Your task to perform on an android device: change text size in settings app Image 0: 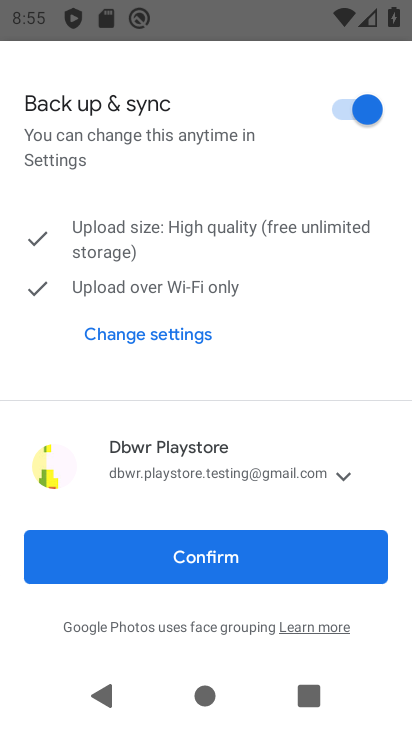
Step 0: click (206, 552)
Your task to perform on an android device: change text size in settings app Image 1: 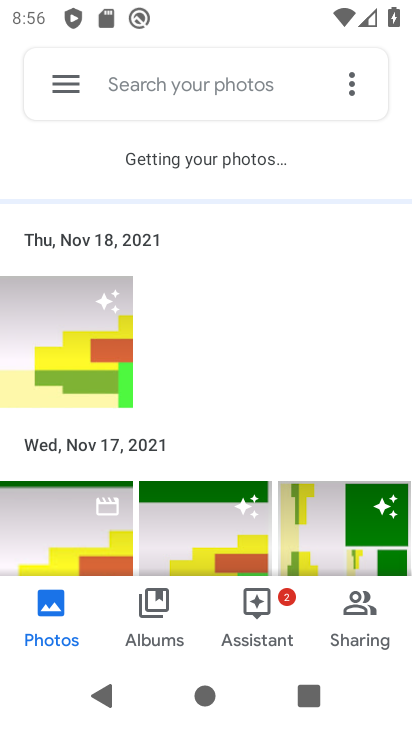
Step 1: press back button
Your task to perform on an android device: change text size in settings app Image 2: 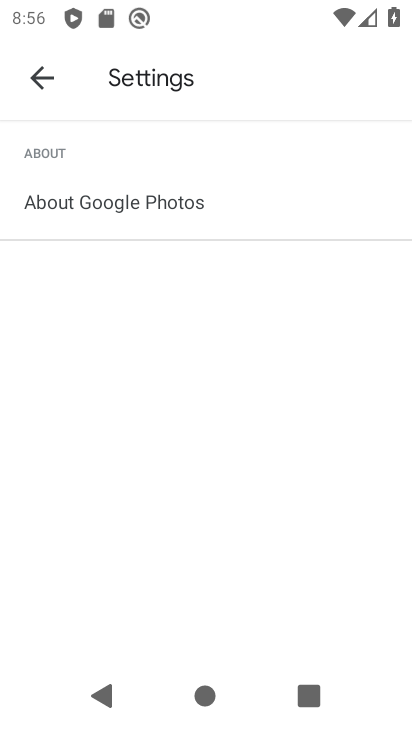
Step 2: press back button
Your task to perform on an android device: change text size in settings app Image 3: 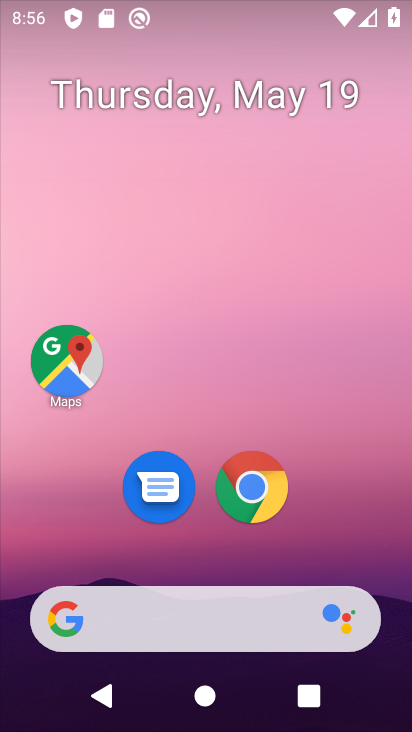
Step 3: drag from (203, 527) to (281, 20)
Your task to perform on an android device: change text size in settings app Image 4: 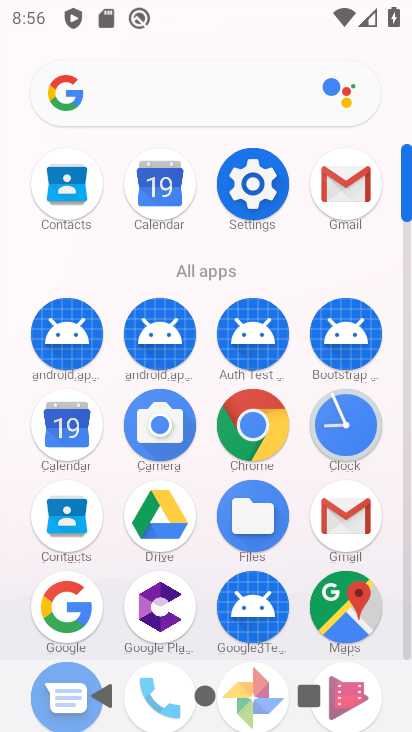
Step 4: click (258, 185)
Your task to perform on an android device: change text size in settings app Image 5: 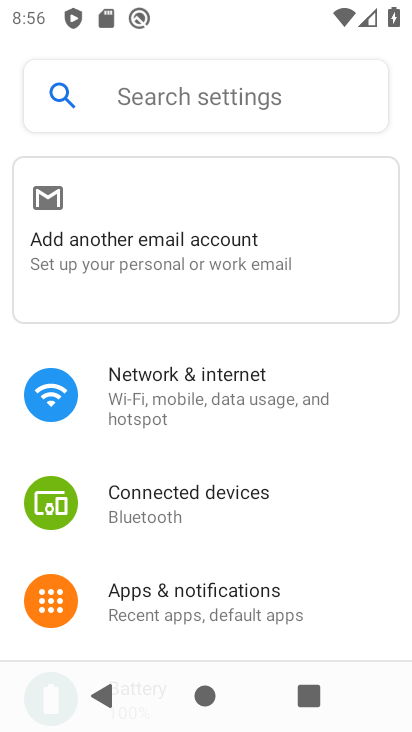
Step 5: click (171, 95)
Your task to perform on an android device: change text size in settings app Image 6: 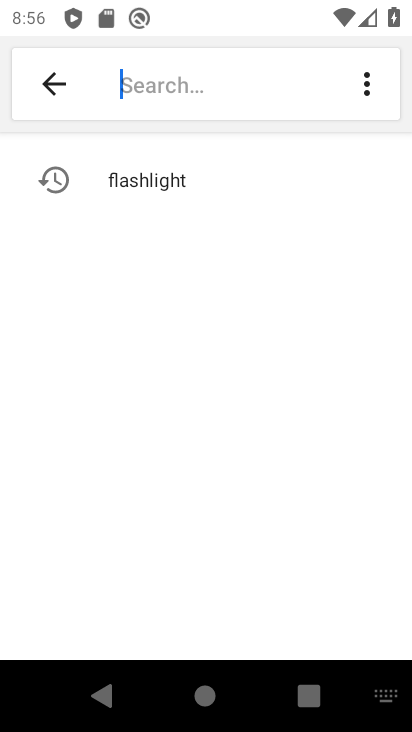
Step 6: type "text size"
Your task to perform on an android device: change text size in settings app Image 7: 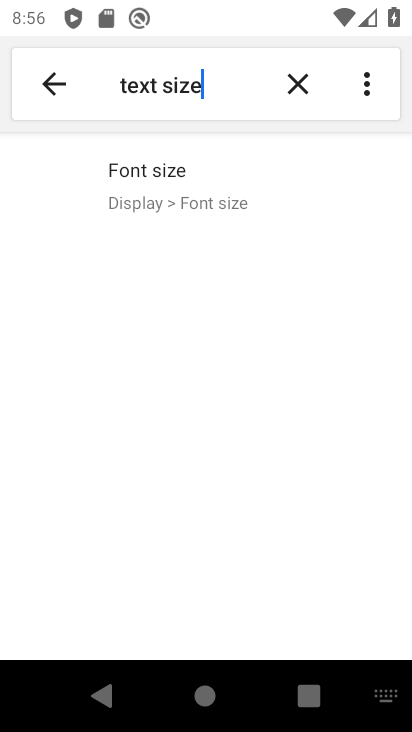
Step 7: click (150, 190)
Your task to perform on an android device: change text size in settings app Image 8: 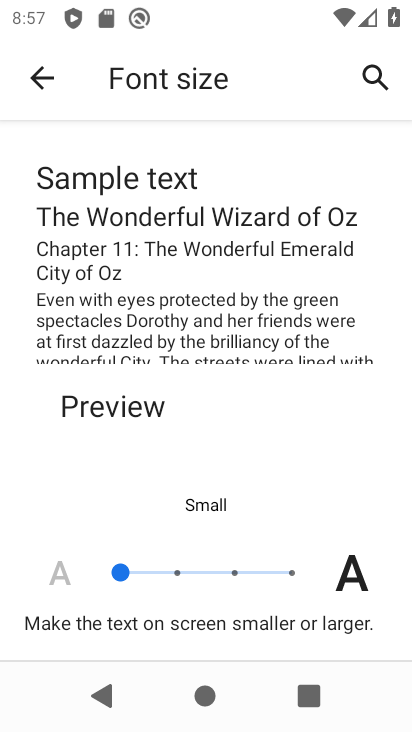
Step 8: task complete